Your task to perform on an android device: Search for the new nike shoes on Target Image 0: 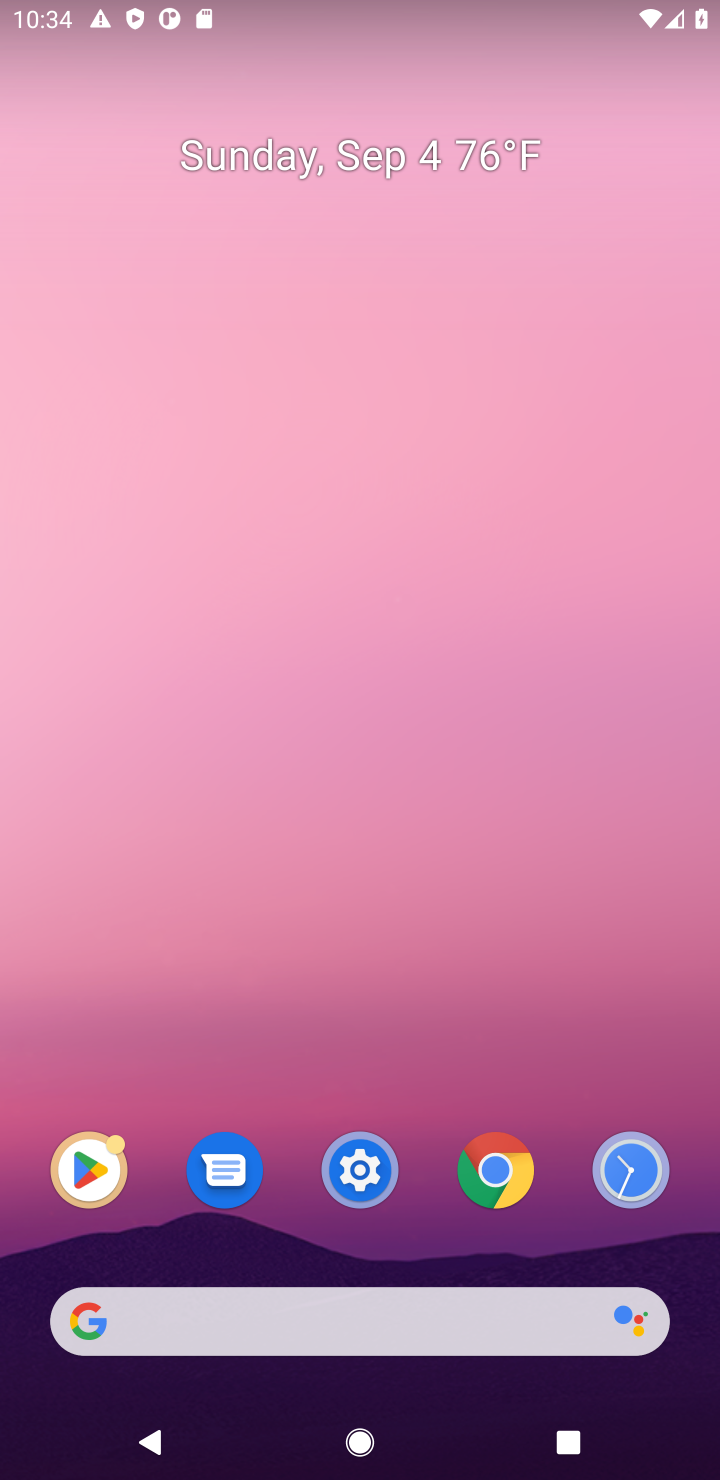
Step 0: click (269, 1323)
Your task to perform on an android device: Search for the new nike shoes on Target Image 1: 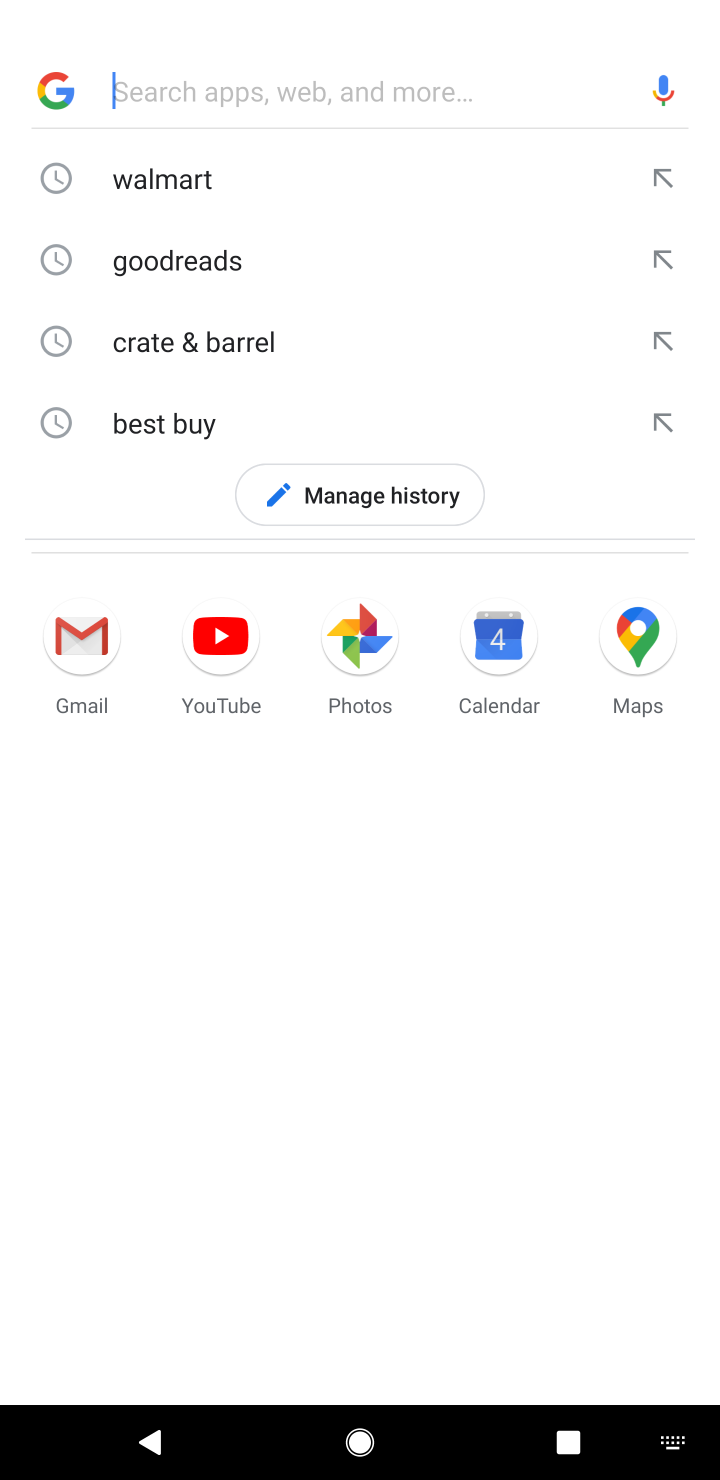
Step 1: type "Target"
Your task to perform on an android device: Search for the new nike shoes on Target Image 2: 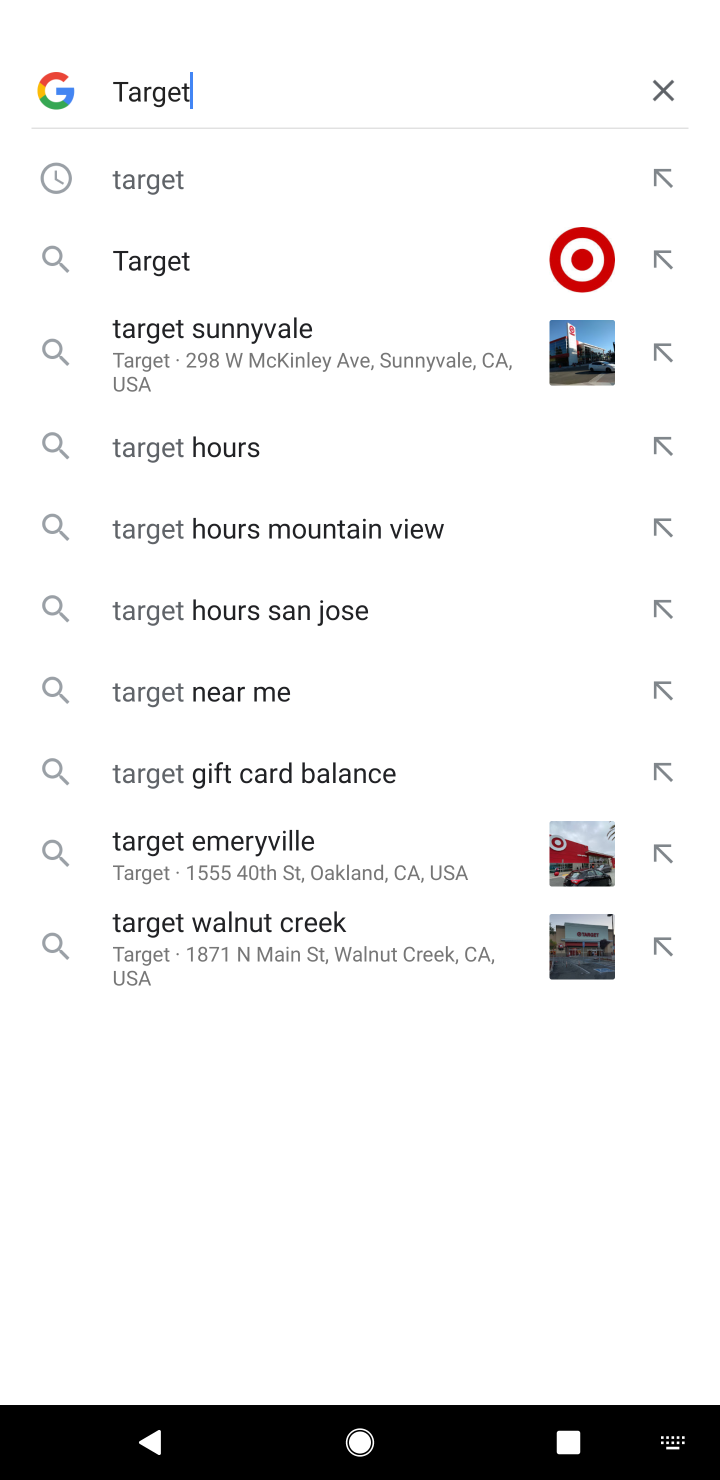
Step 2: click (190, 187)
Your task to perform on an android device: Search for the new nike shoes on Target Image 3: 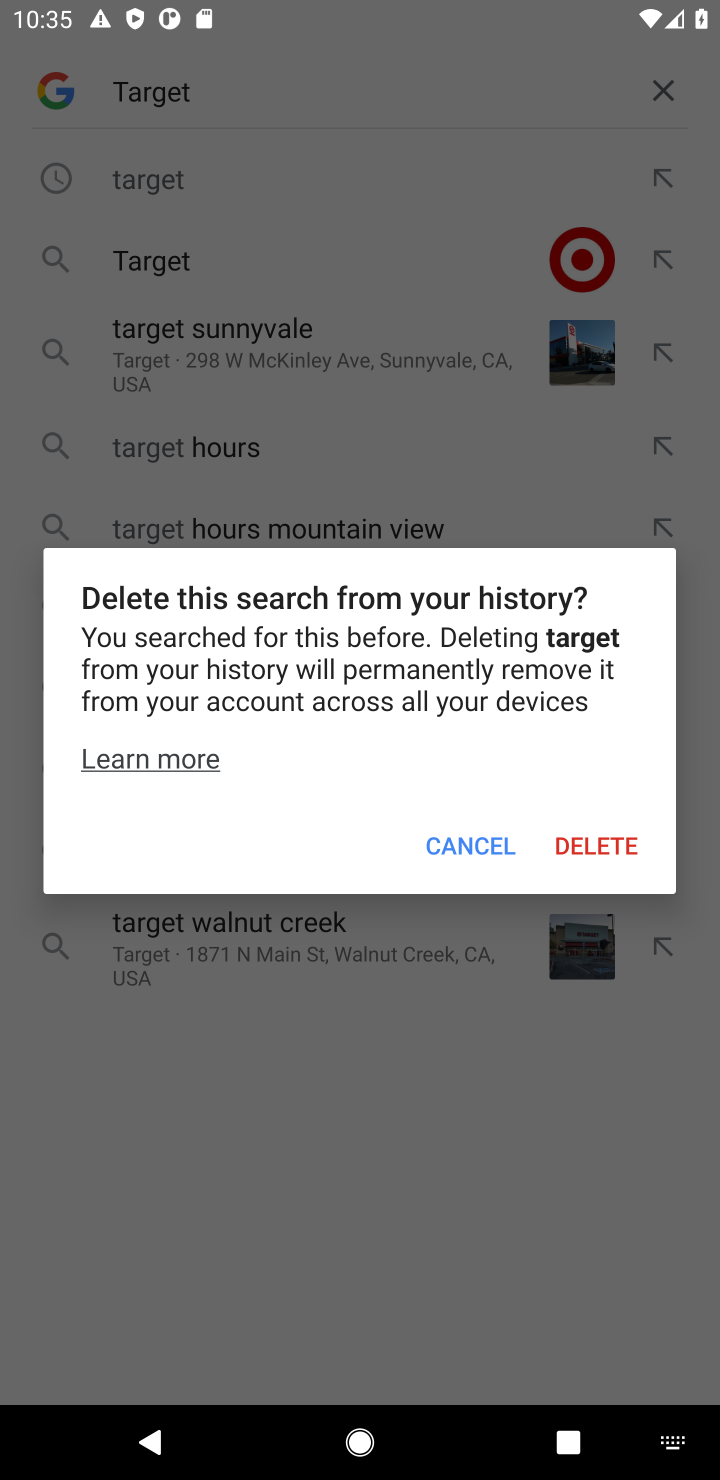
Step 3: click (447, 840)
Your task to perform on an android device: Search for the new nike shoes on Target Image 4: 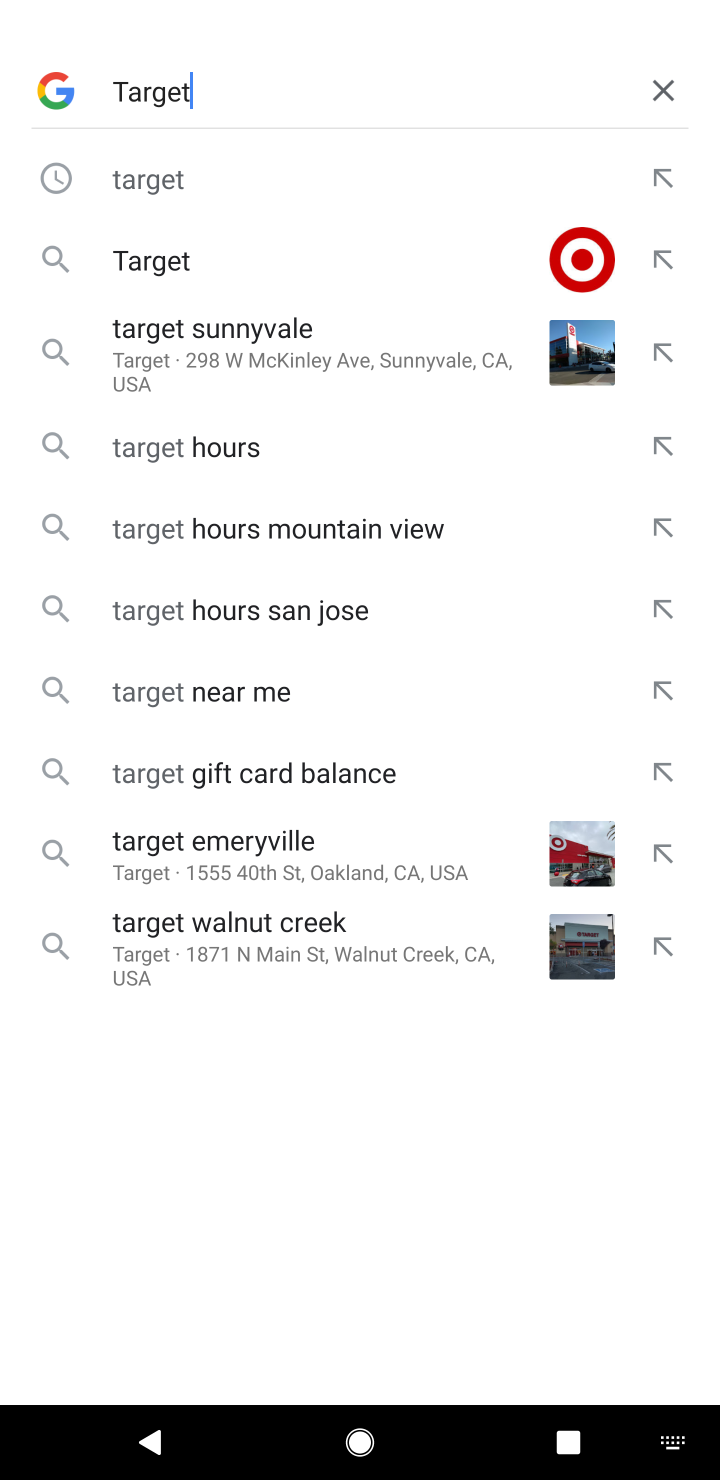
Step 4: click (197, 250)
Your task to perform on an android device: Search for the new nike shoes on Target Image 5: 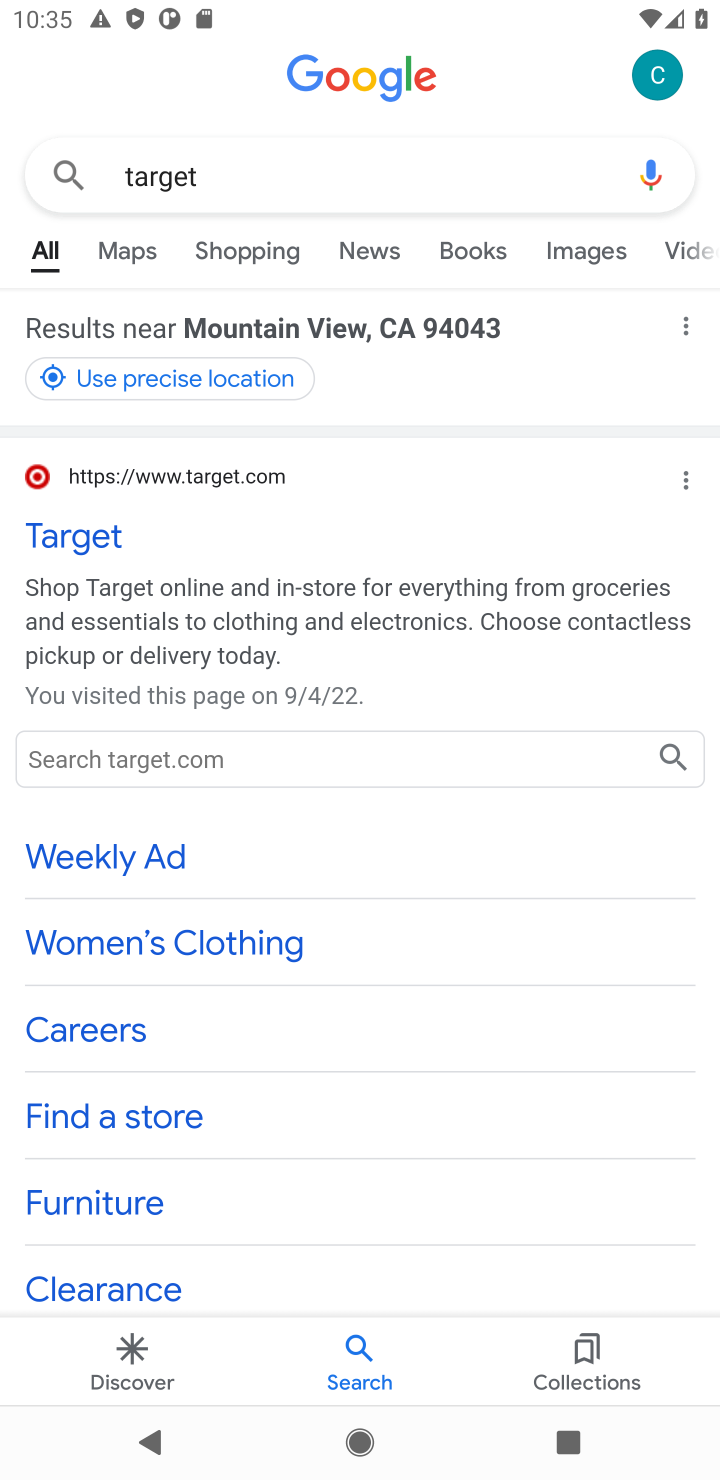
Step 5: click (108, 524)
Your task to perform on an android device: Search for the new nike shoes on Target Image 6: 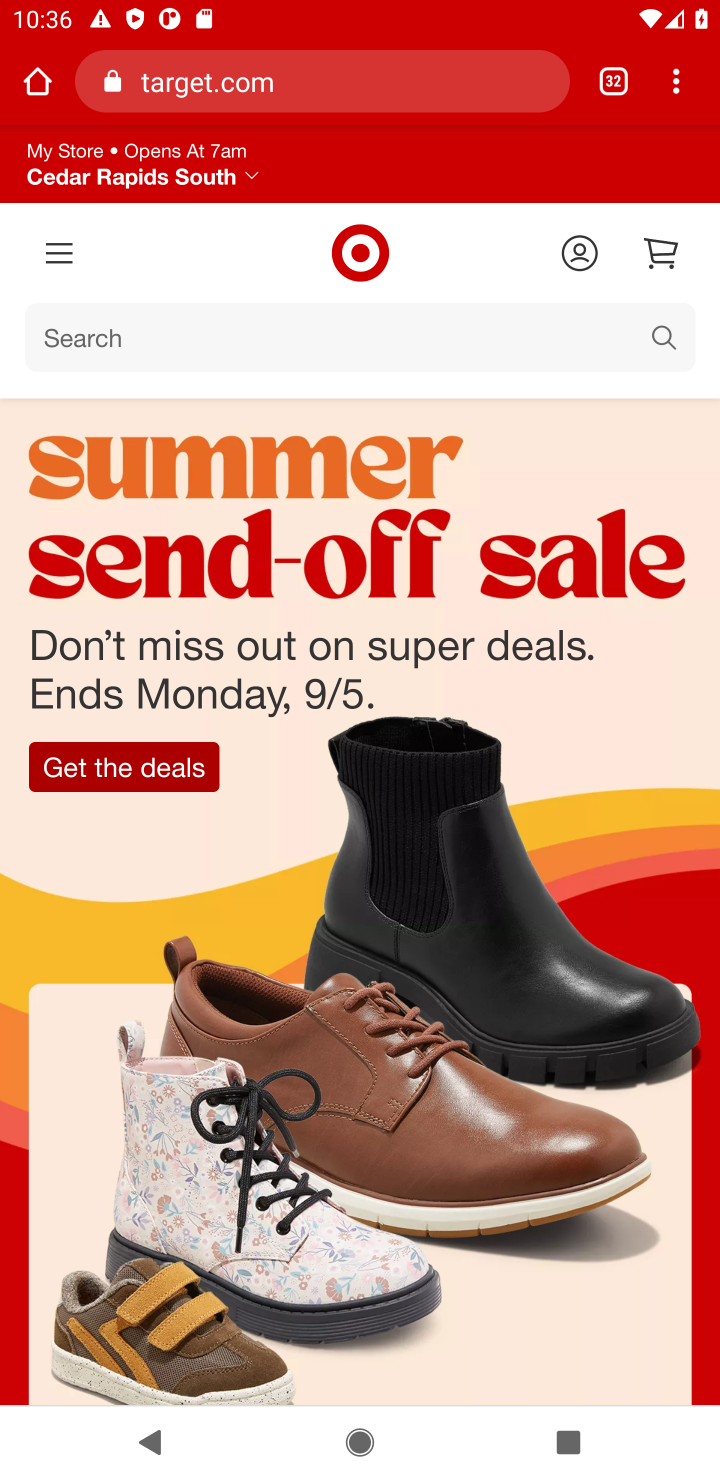
Step 6: click (566, 342)
Your task to perform on an android device: Search for the new nike shoes on Target Image 7: 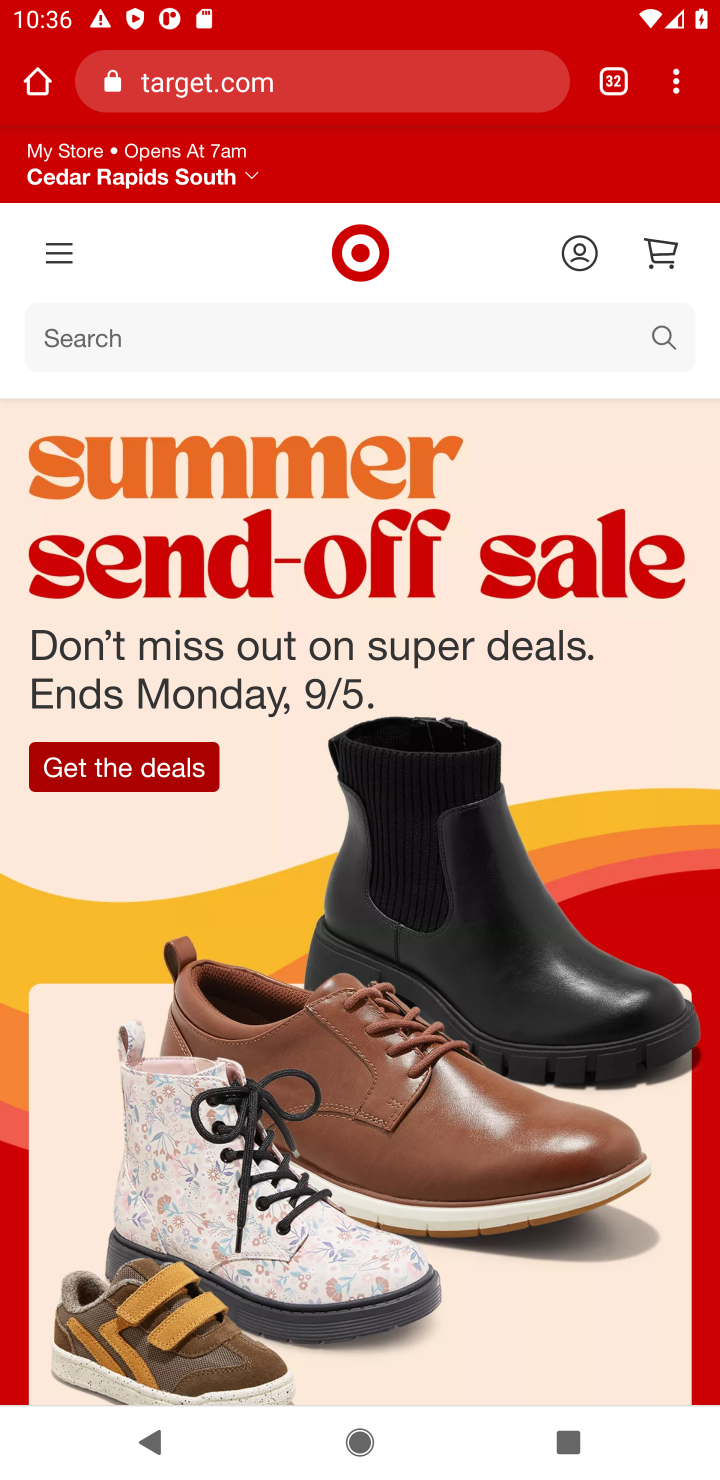
Step 7: click (331, 358)
Your task to perform on an android device: Search for the new nike shoes on Target Image 8: 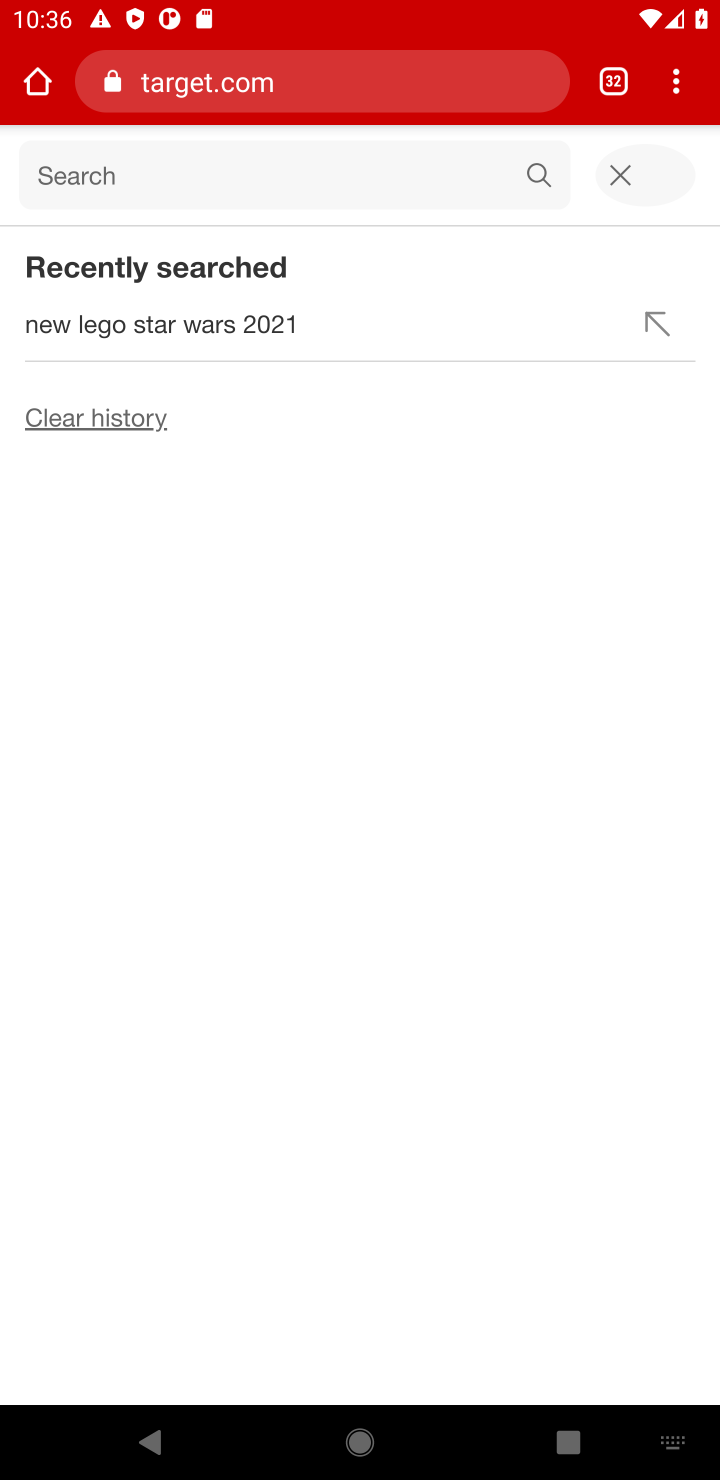
Step 8: type "nike shoes"
Your task to perform on an android device: Search for the new nike shoes on Target Image 9: 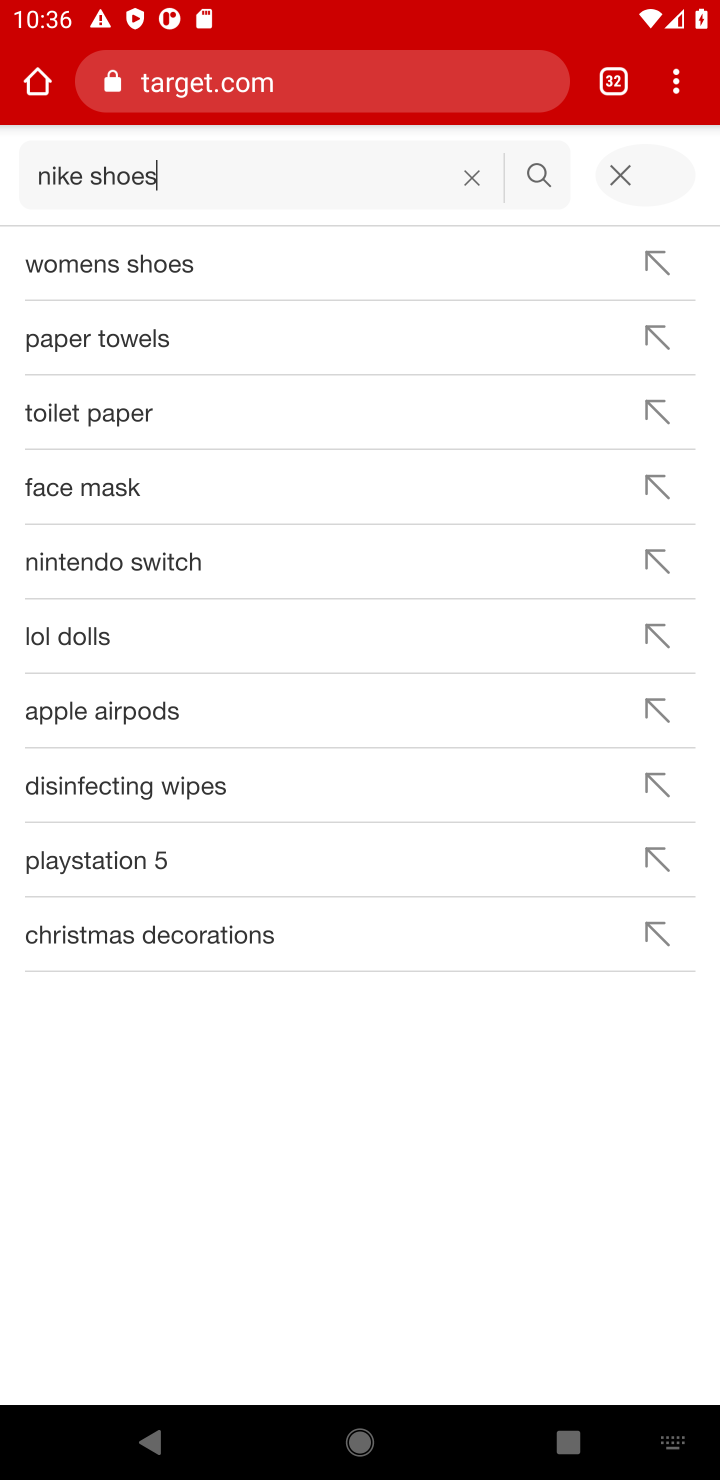
Step 9: type ""
Your task to perform on an android device: Search for the new nike shoes on Target Image 10: 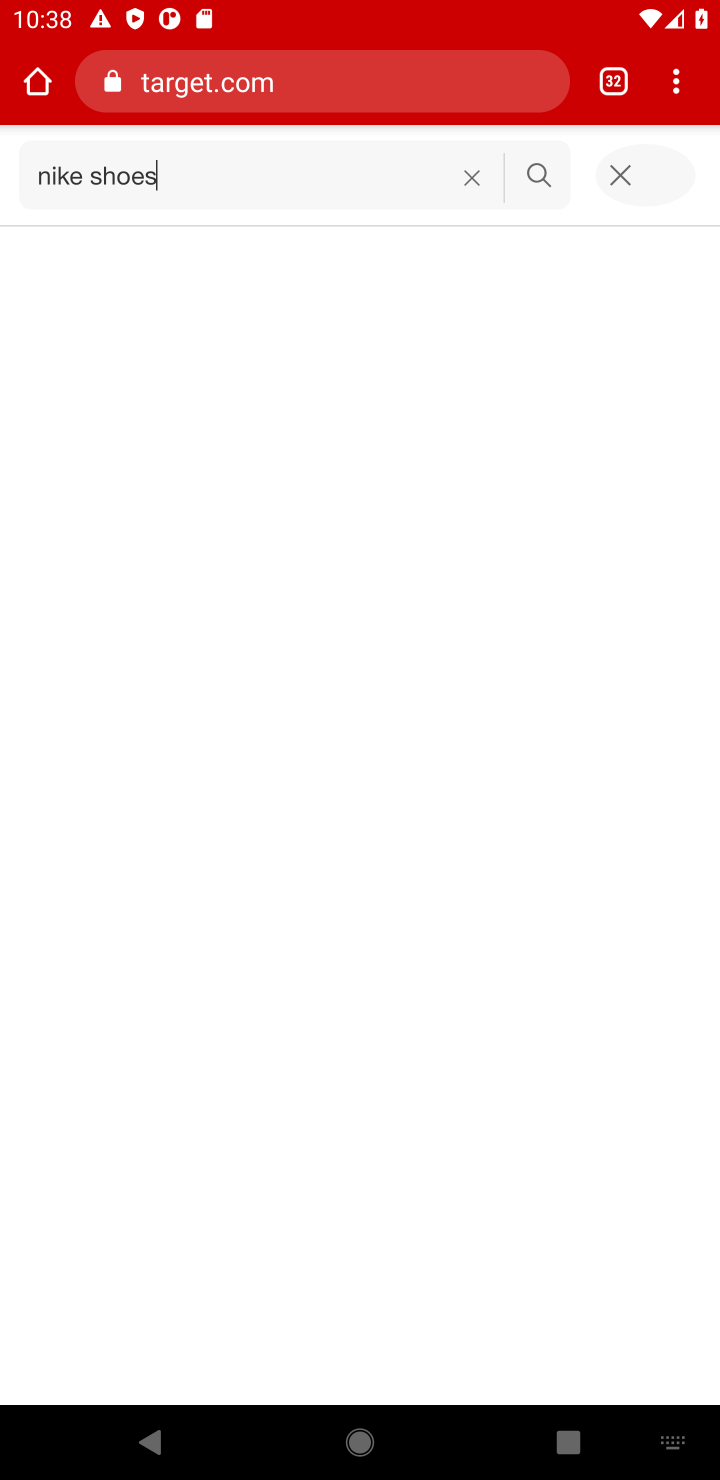
Step 10: click (535, 158)
Your task to perform on an android device: Search for the new nike shoes on Target Image 11: 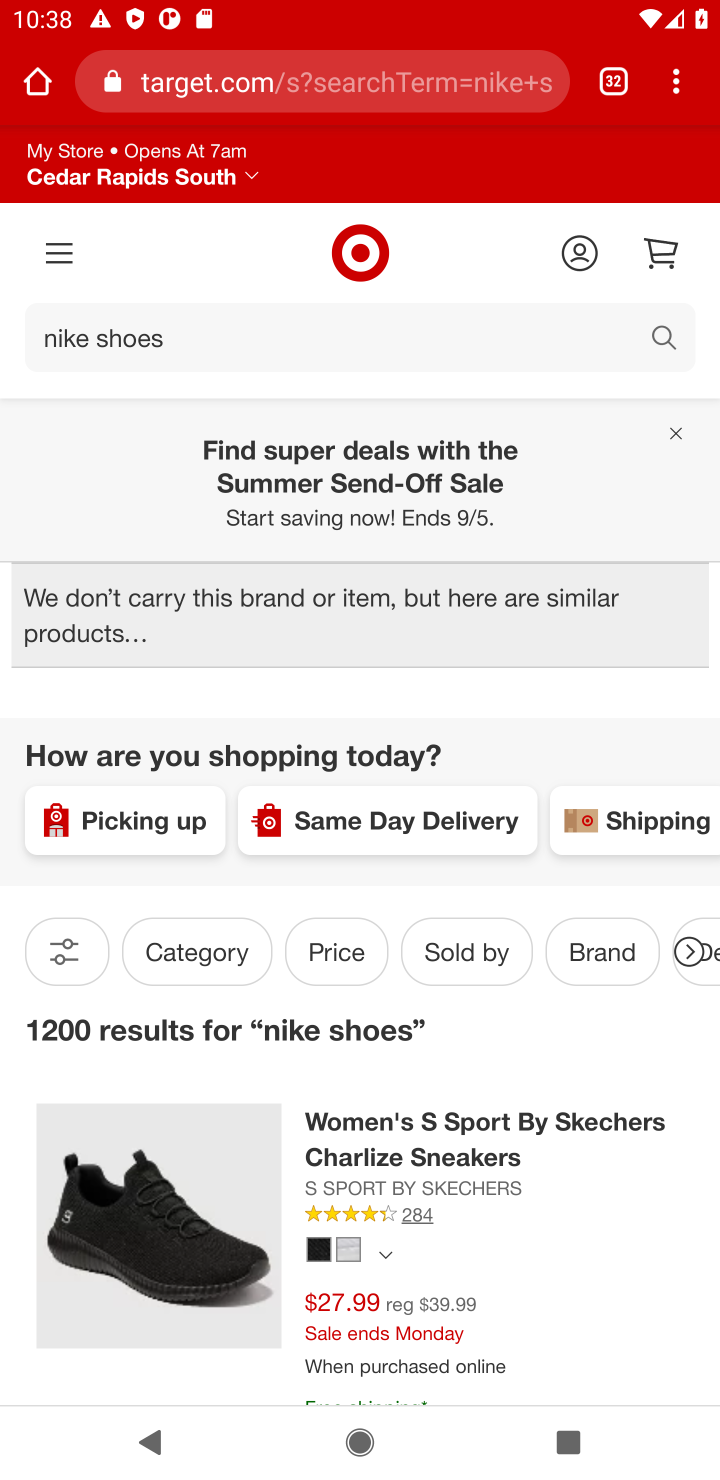
Step 11: click (454, 1153)
Your task to perform on an android device: Search for the new nike shoes on Target Image 12: 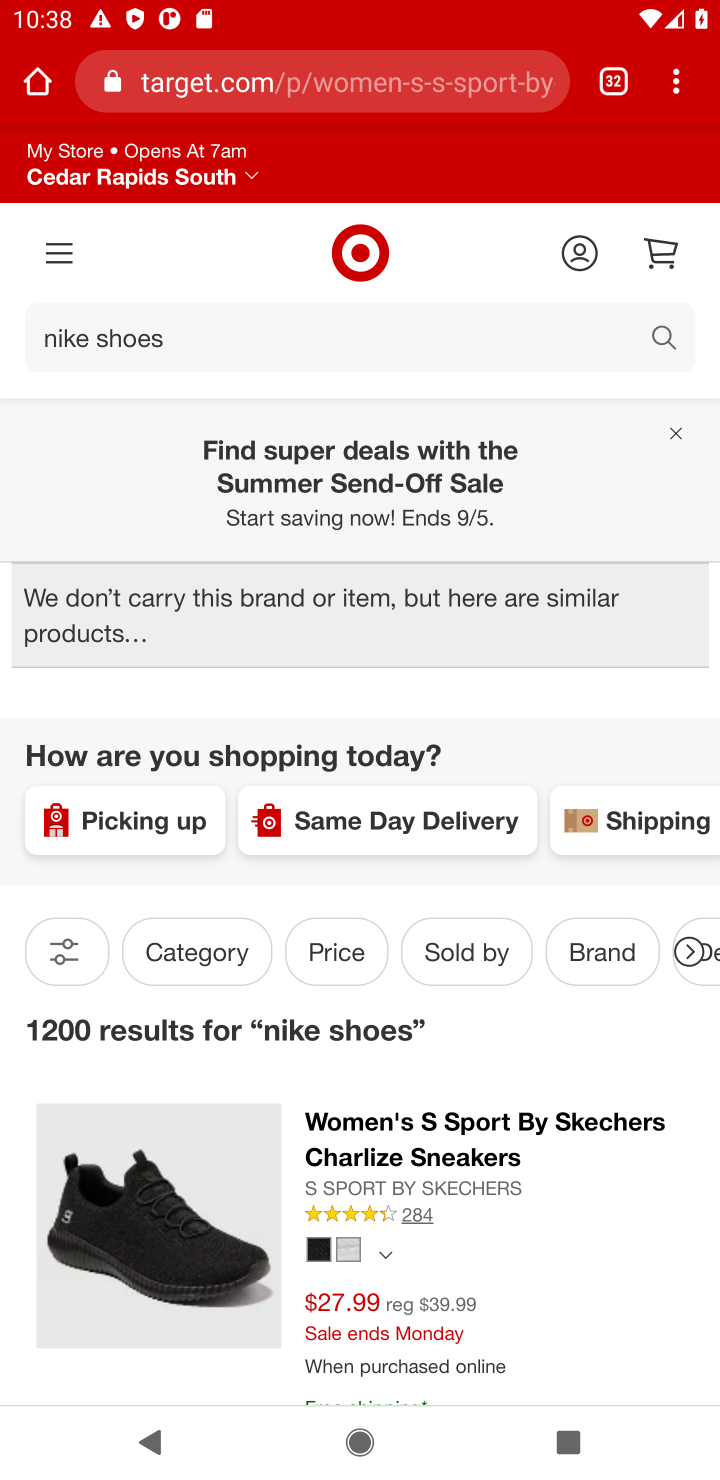
Step 12: task complete